Your task to perform on an android device: make emails show in primary in the gmail app Image 0: 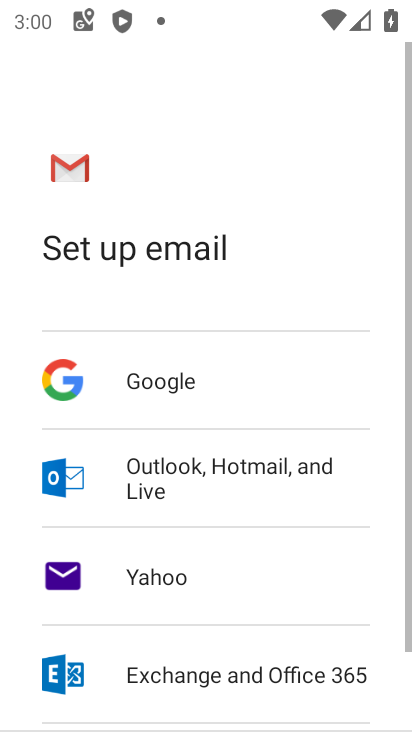
Step 0: press home button
Your task to perform on an android device: make emails show in primary in the gmail app Image 1: 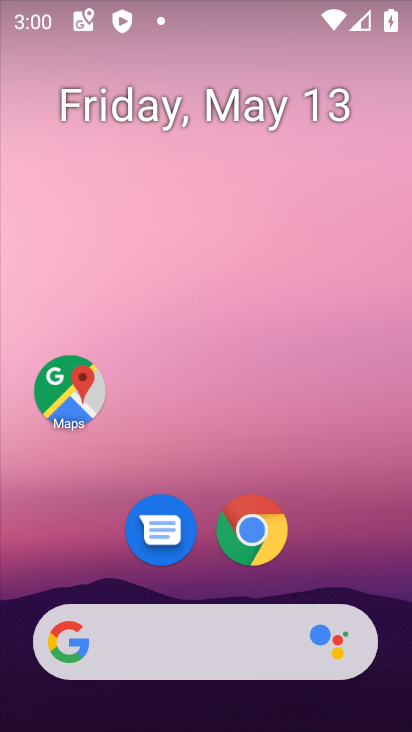
Step 1: drag from (356, 524) to (294, 156)
Your task to perform on an android device: make emails show in primary in the gmail app Image 2: 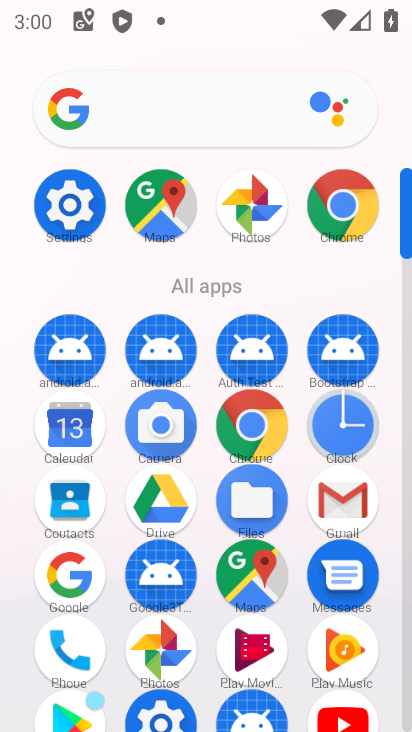
Step 2: click (337, 504)
Your task to perform on an android device: make emails show in primary in the gmail app Image 3: 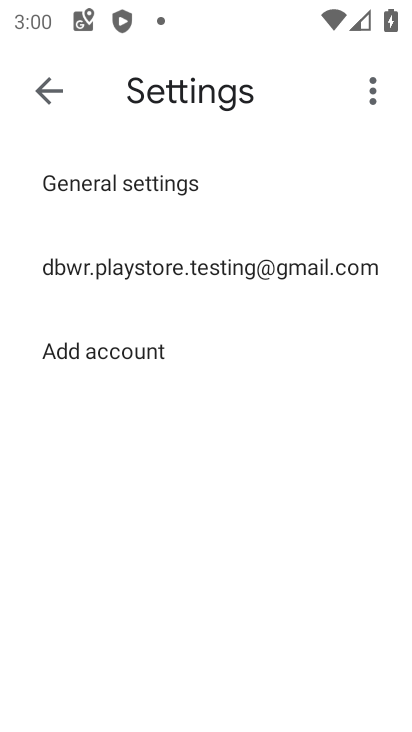
Step 3: click (128, 259)
Your task to perform on an android device: make emails show in primary in the gmail app Image 4: 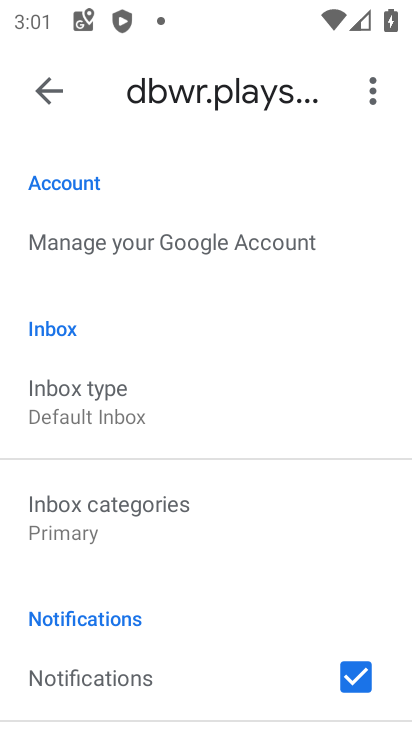
Step 4: click (132, 489)
Your task to perform on an android device: make emails show in primary in the gmail app Image 5: 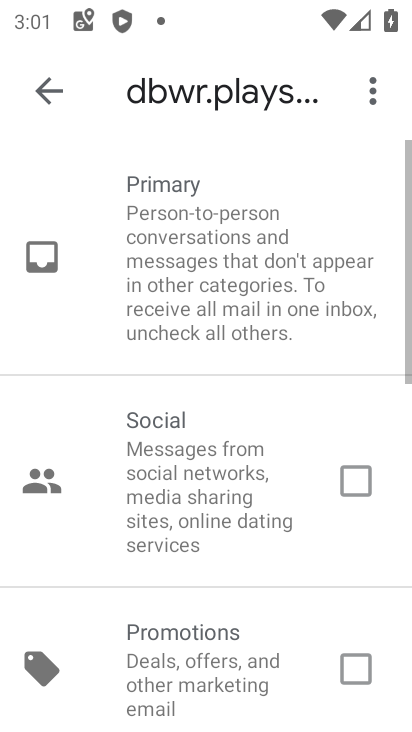
Step 5: task complete